Your task to perform on an android device: open device folders in google photos Image 0: 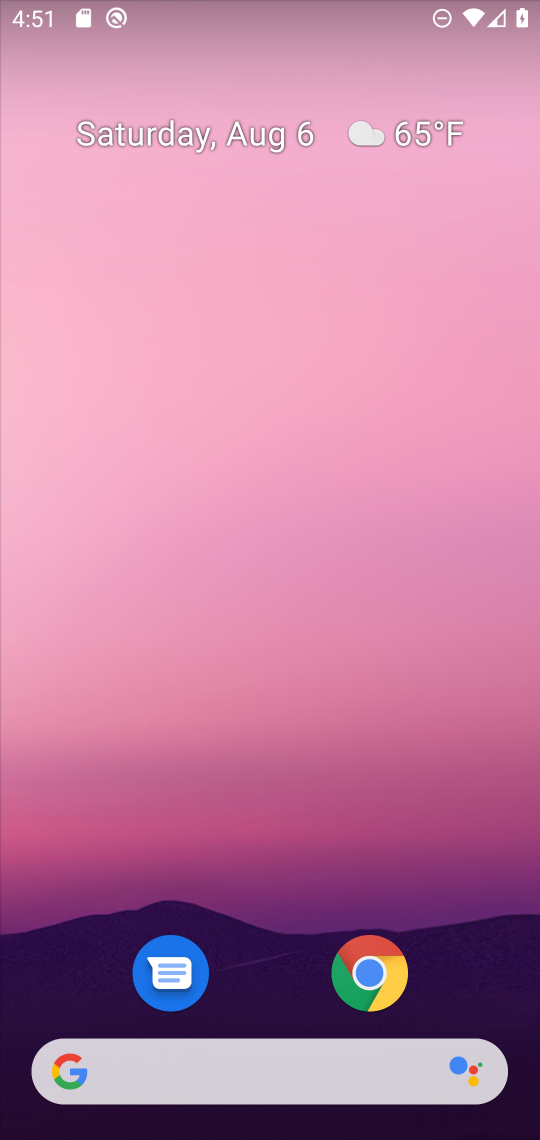
Step 0: drag from (278, 913) to (227, 10)
Your task to perform on an android device: open device folders in google photos Image 1: 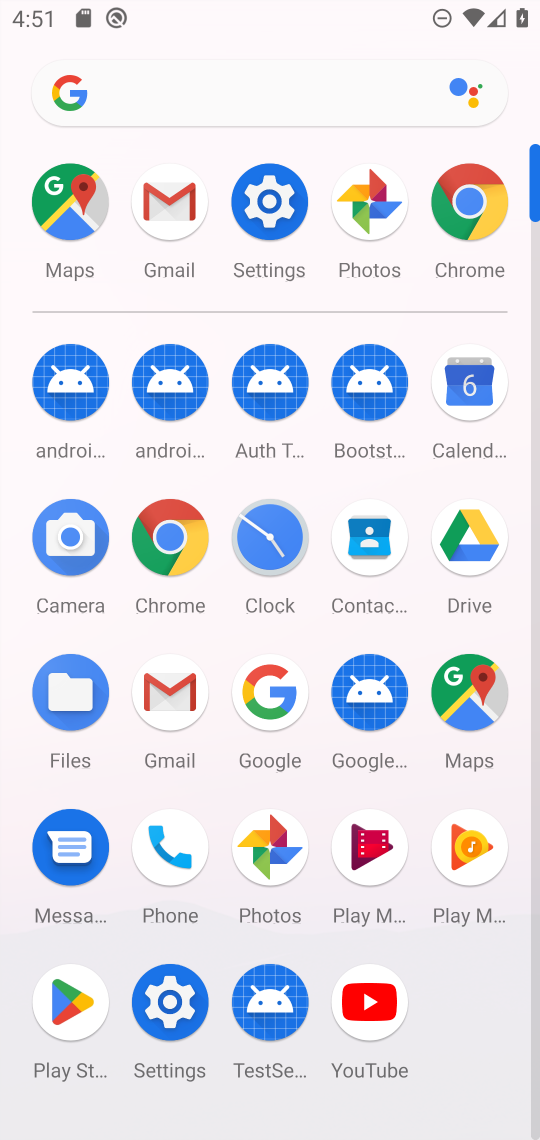
Step 1: click (270, 843)
Your task to perform on an android device: open device folders in google photos Image 2: 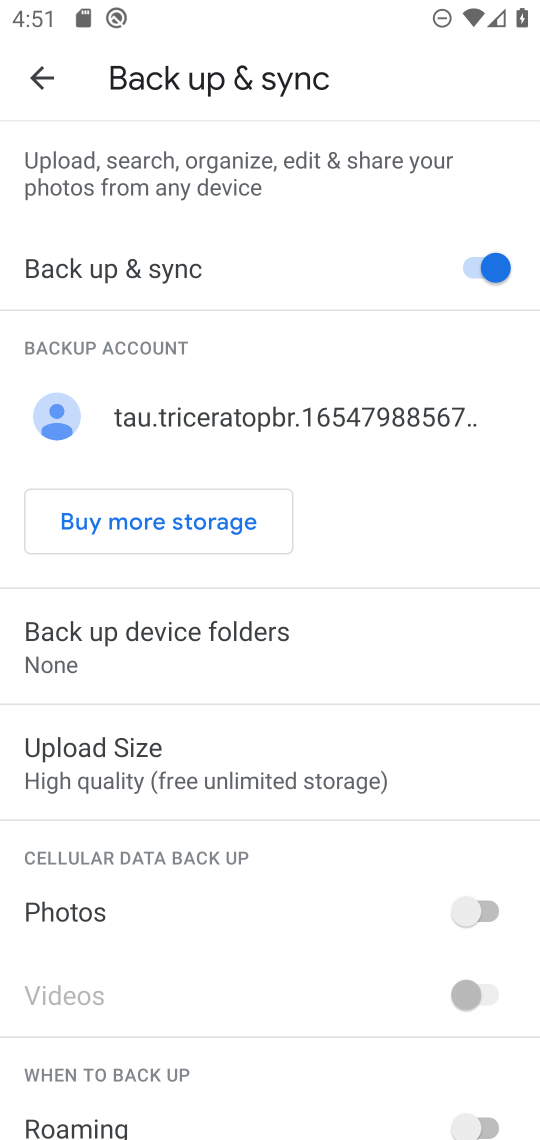
Step 2: click (52, 81)
Your task to perform on an android device: open device folders in google photos Image 3: 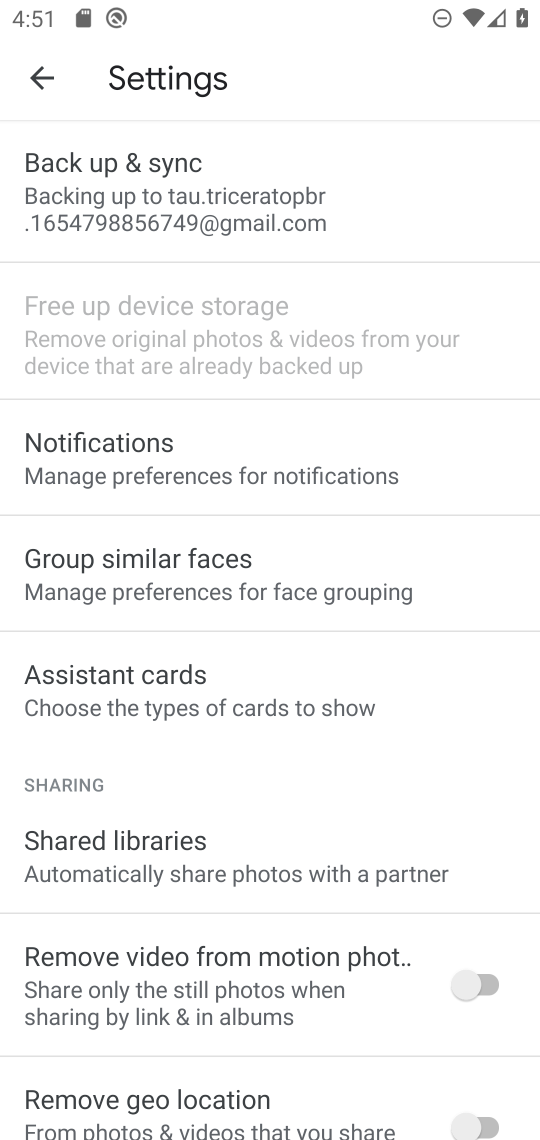
Step 3: click (43, 88)
Your task to perform on an android device: open device folders in google photos Image 4: 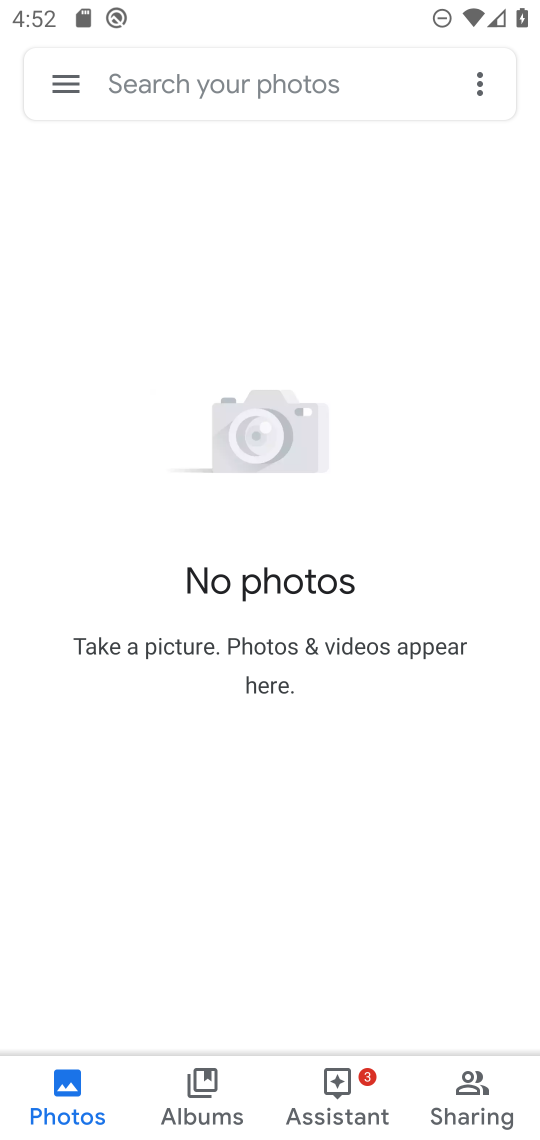
Step 4: click (76, 80)
Your task to perform on an android device: open device folders in google photos Image 5: 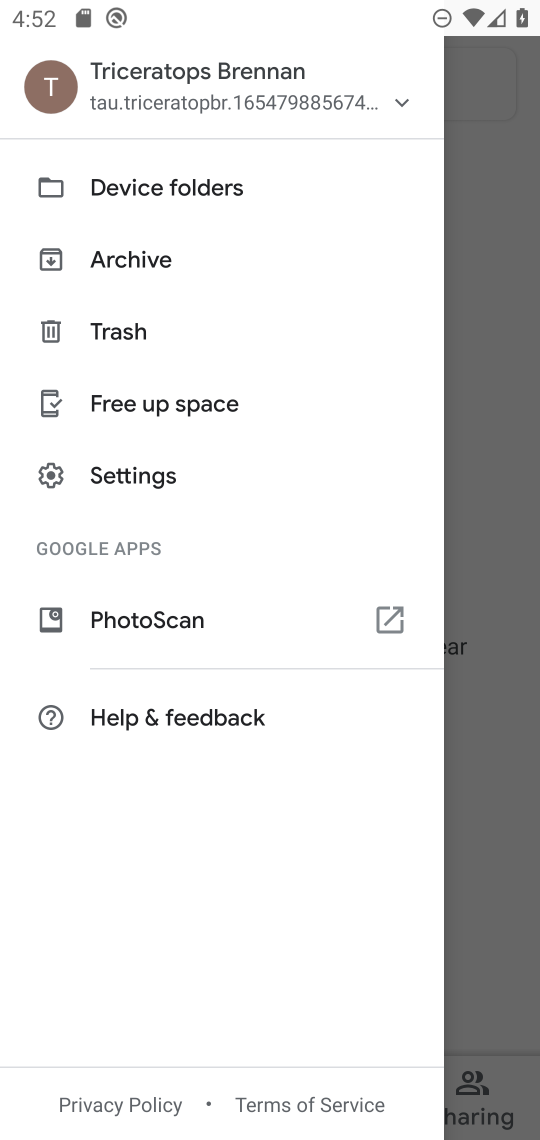
Step 5: click (148, 192)
Your task to perform on an android device: open device folders in google photos Image 6: 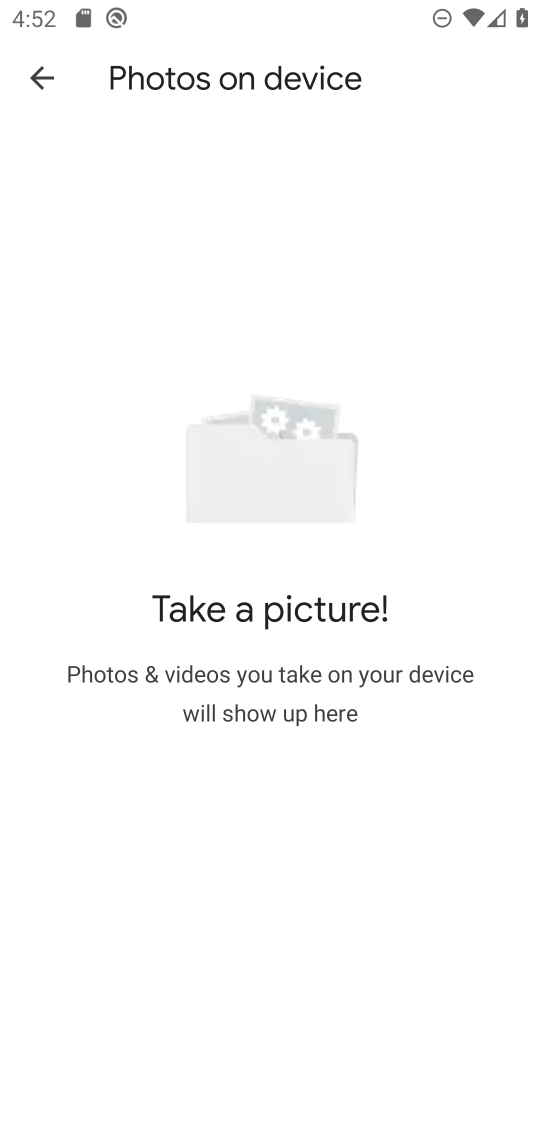
Step 6: task complete